Your task to perform on an android device: turn on data saver in the chrome app Image 0: 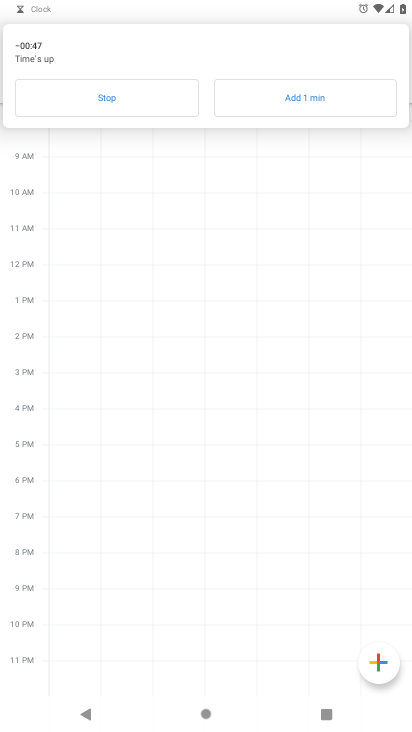
Step 0: press home button
Your task to perform on an android device: turn on data saver in the chrome app Image 1: 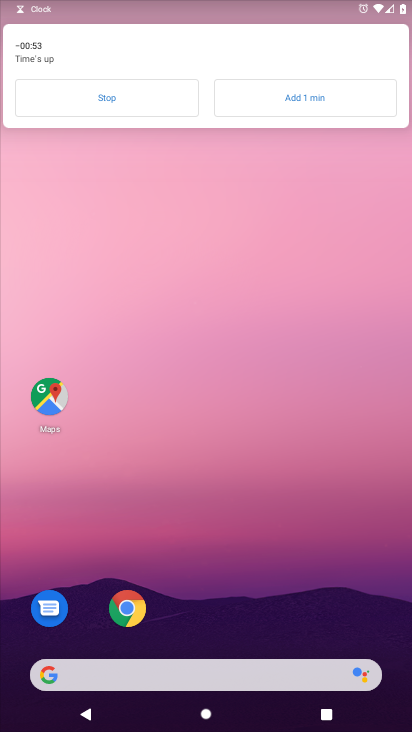
Step 1: click (126, 606)
Your task to perform on an android device: turn on data saver in the chrome app Image 2: 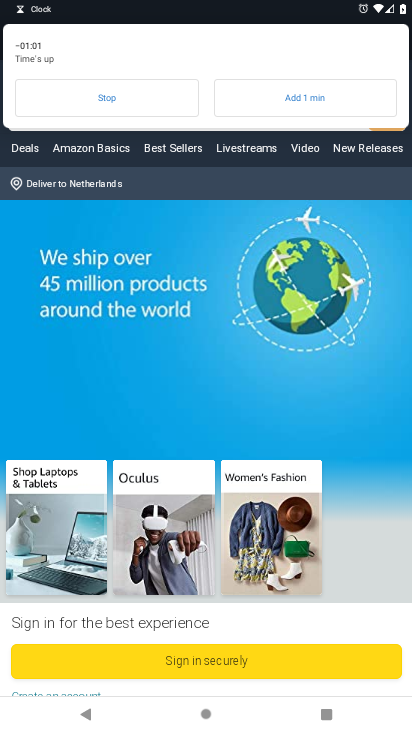
Step 2: click (123, 100)
Your task to perform on an android device: turn on data saver in the chrome app Image 3: 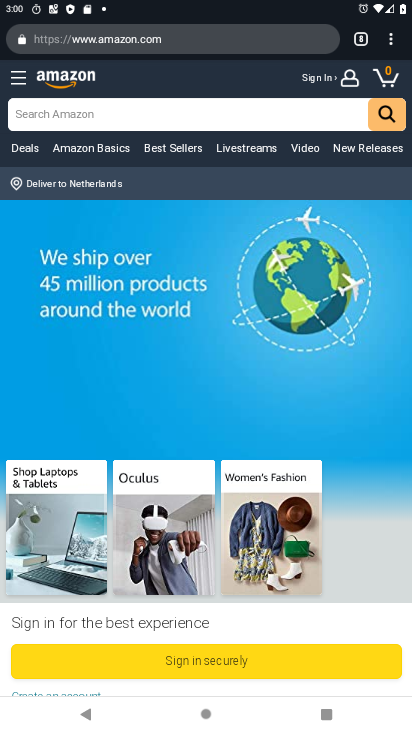
Step 3: click (391, 45)
Your task to perform on an android device: turn on data saver in the chrome app Image 4: 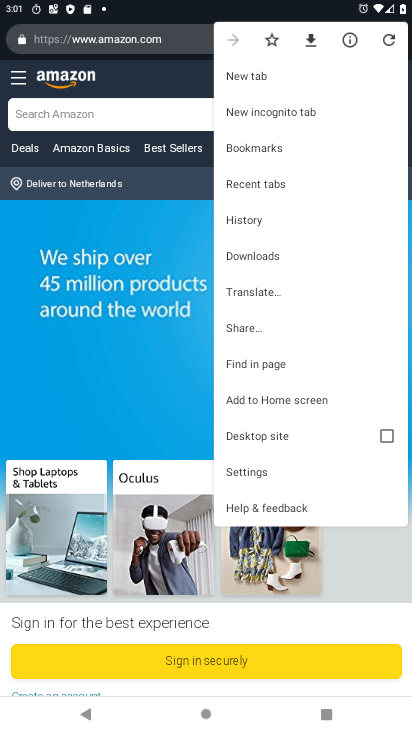
Step 4: click (245, 469)
Your task to perform on an android device: turn on data saver in the chrome app Image 5: 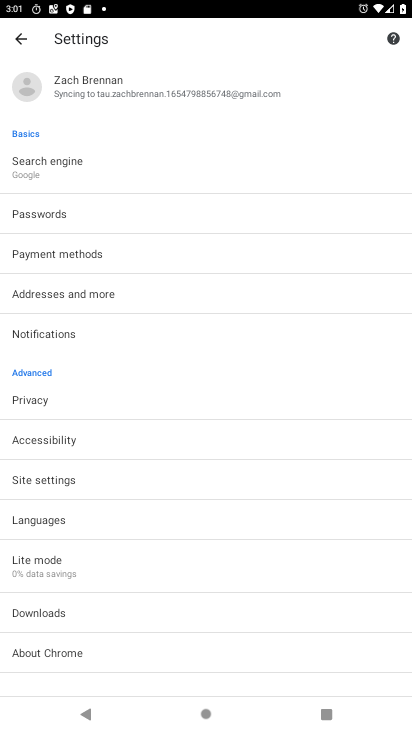
Step 5: click (50, 559)
Your task to perform on an android device: turn on data saver in the chrome app Image 6: 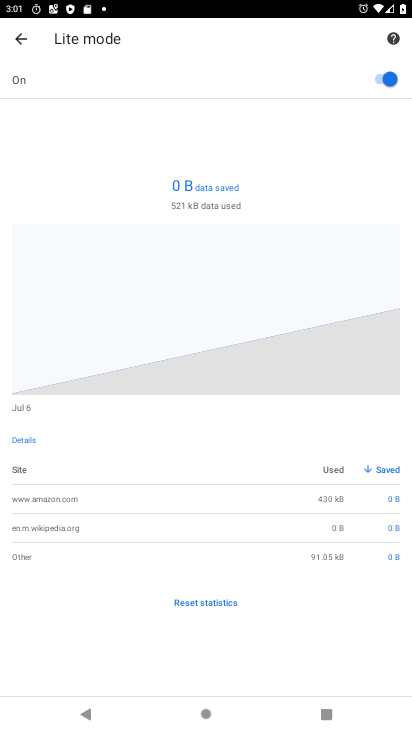
Step 6: task complete